Your task to perform on an android device: Do I have any events this weekend? Image 0: 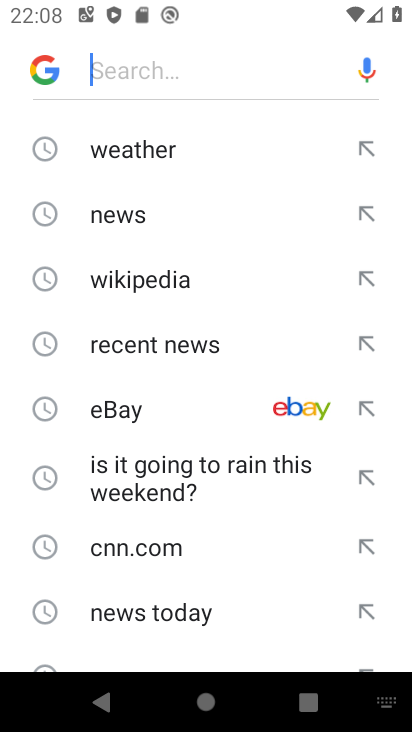
Step 0: press home button
Your task to perform on an android device: Do I have any events this weekend? Image 1: 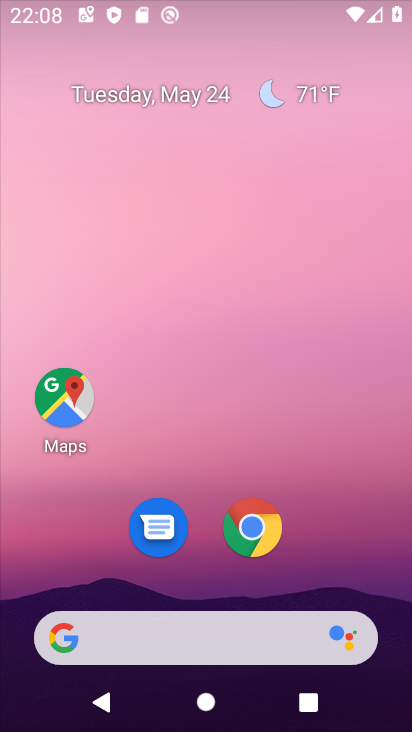
Step 1: drag from (200, 574) to (106, 120)
Your task to perform on an android device: Do I have any events this weekend? Image 2: 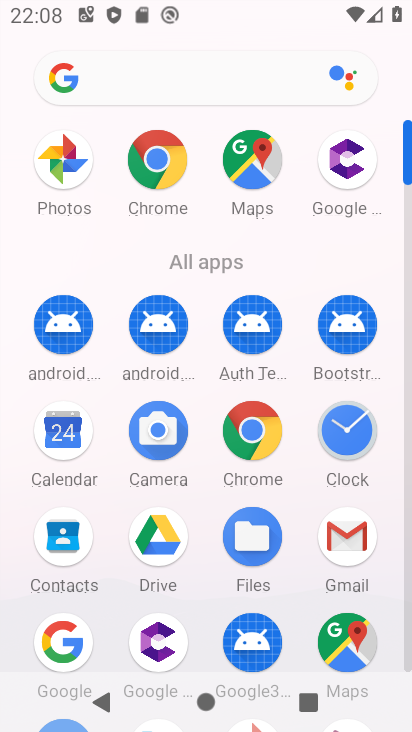
Step 2: click (80, 426)
Your task to perform on an android device: Do I have any events this weekend? Image 3: 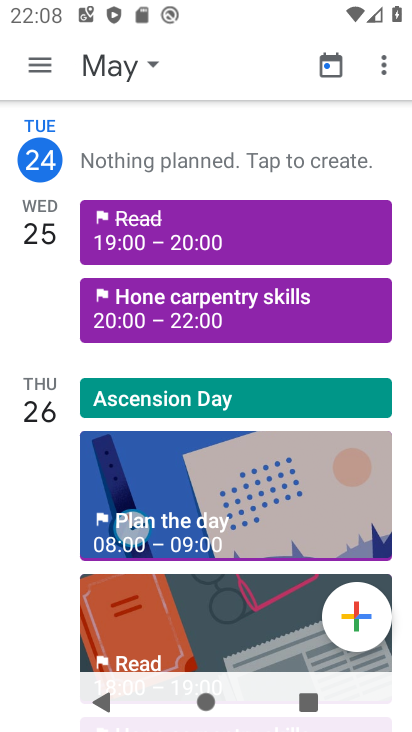
Step 3: click (100, 65)
Your task to perform on an android device: Do I have any events this weekend? Image 4: 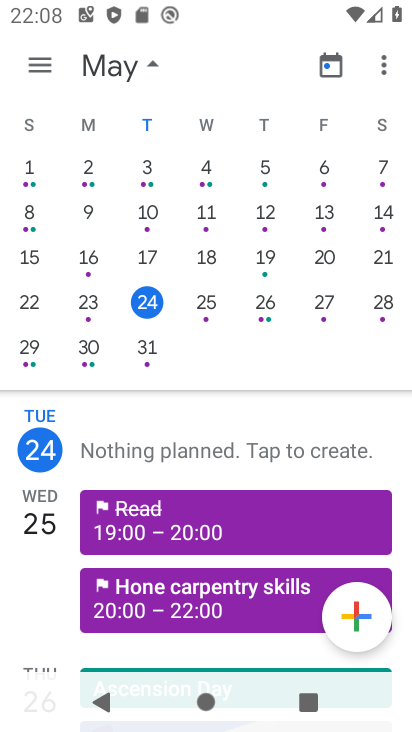
Step 4: click (392, 300)
Your task to perform on an android device: Do I have any events this weekend? Image 5: 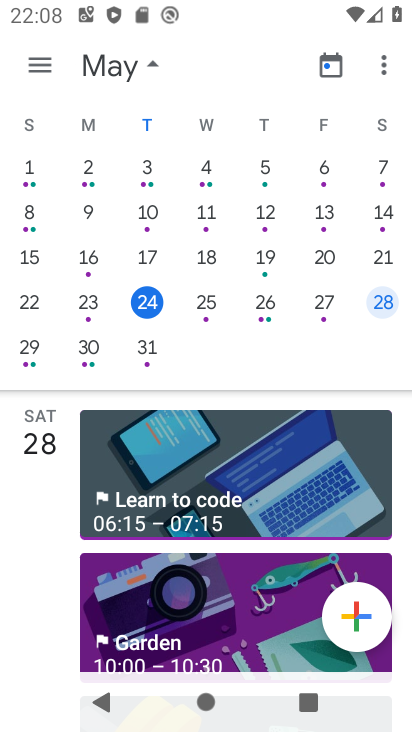
Step 5: task complete